Your task to perform on an android device: Open display settings Image 0: 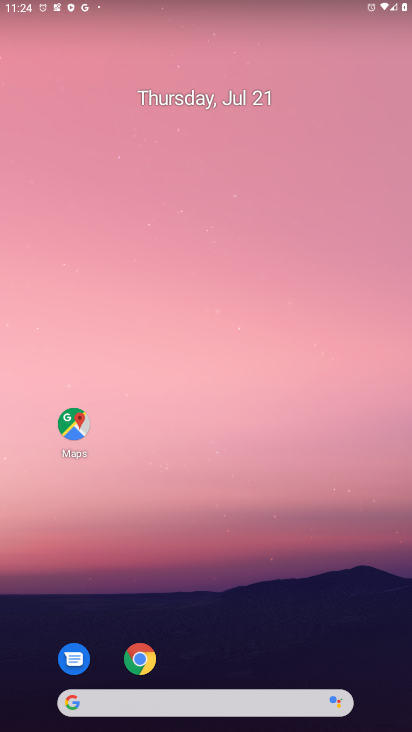
Step 0: drag from (229, 706) to (306, 62)
Your task to perform on an android device: Open display settings Image 1: 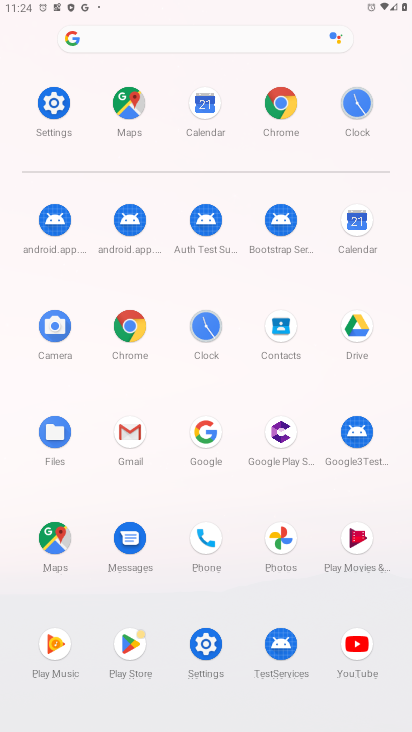
Step 1: click (54, 100)
Your task to perform on an android device: Open display settings Image 2: 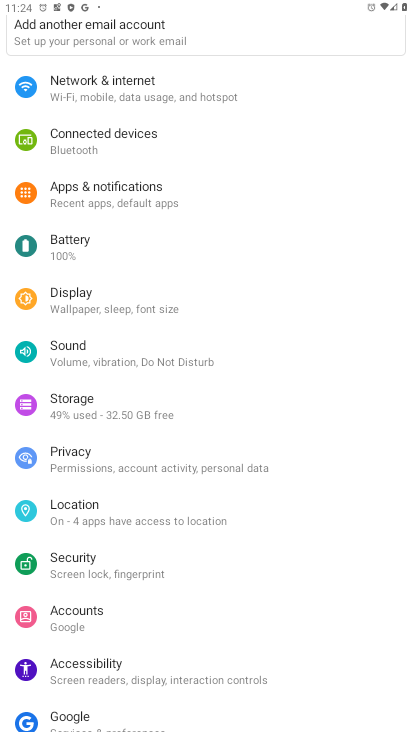
Step 2: click (84, 300)
Your task to perform on an android device: Open display settings Image 3: 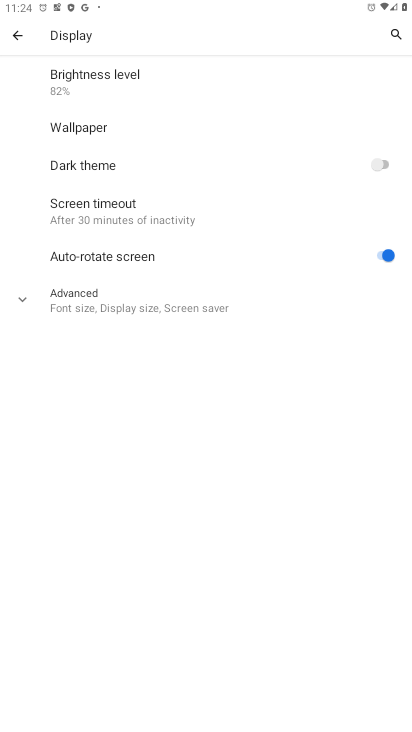
Step 3: task complete